Your task to perform on an android device: change keyboard looks Image 0: 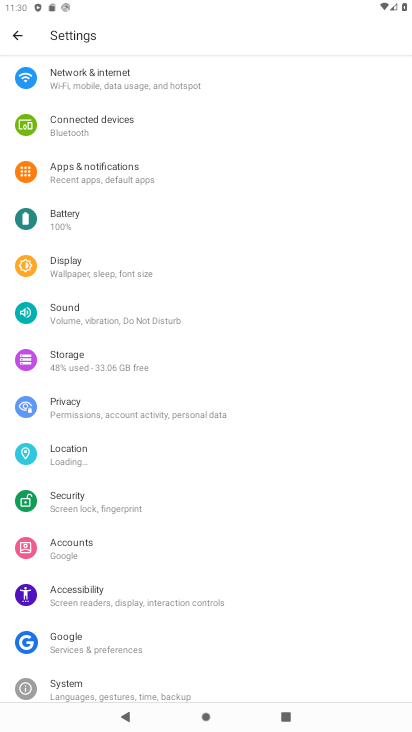
Step 0: drag from (146, 649) to (188, 215)
Your task to perform on an android device: change keyboard looks Image 1: 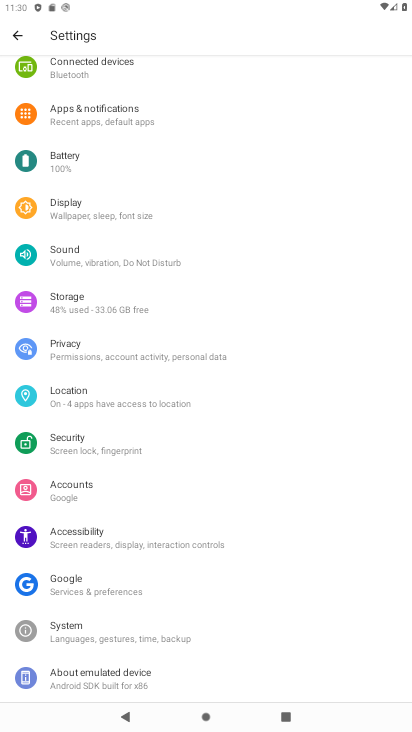
Step 1: click (133, 614)
Your task to perform on an android device: change keyboard looks Image 2: 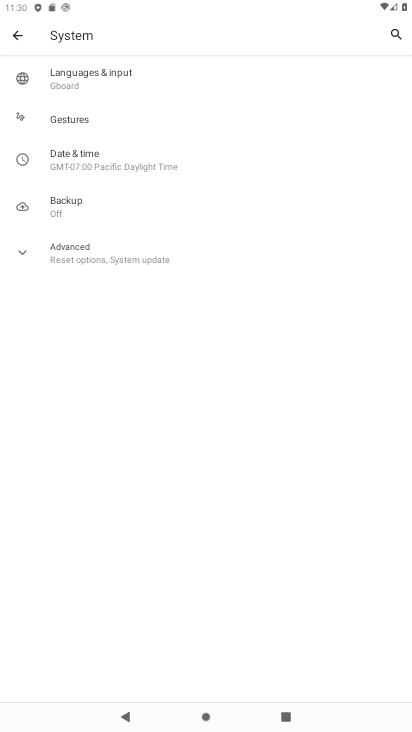
Step 2: click (109, 77)
Your task to perform on an android device: change keyboard looks Image 3: 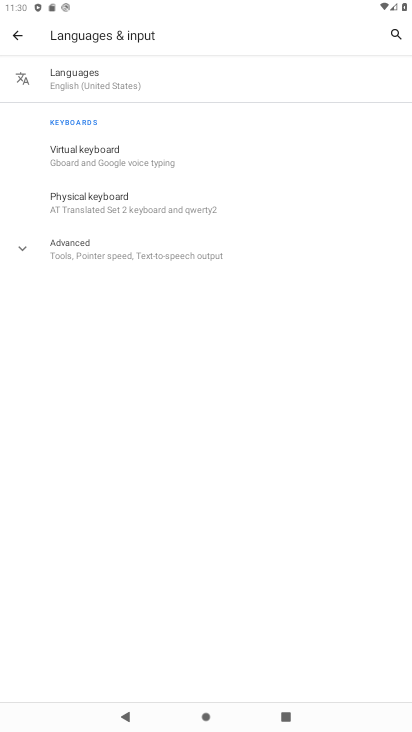
Step 3: click (97, 164)
Your task to perform on an android device: change keyboard looks Image 4: 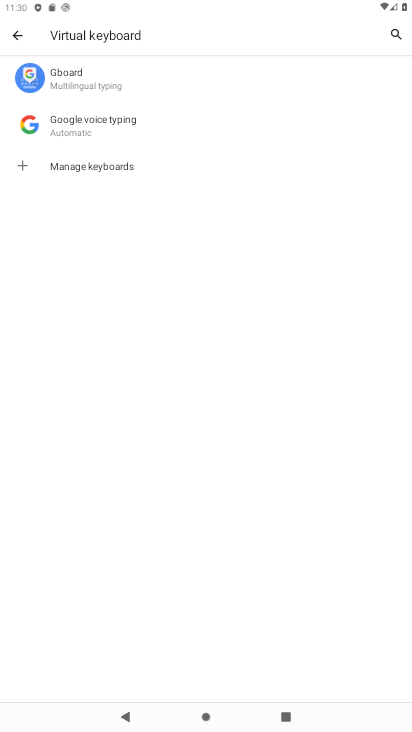
Step 4: click (91, 74)
Your task to perform on an android device: change keyboard looks Image 5: 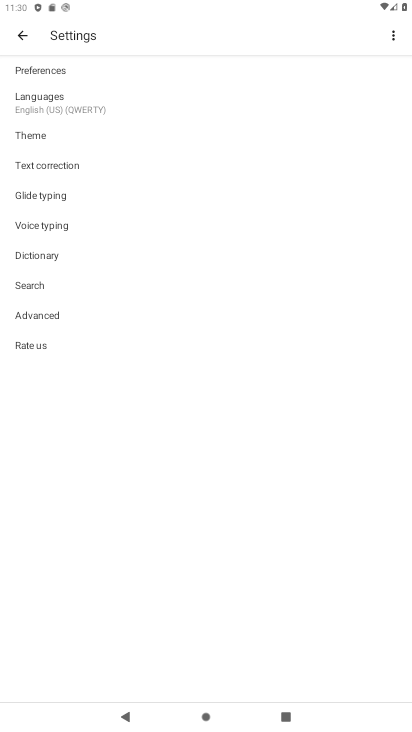
Step 5: click (54, 131)
Your task to perform on an android device: change keyboard looks Image 6: 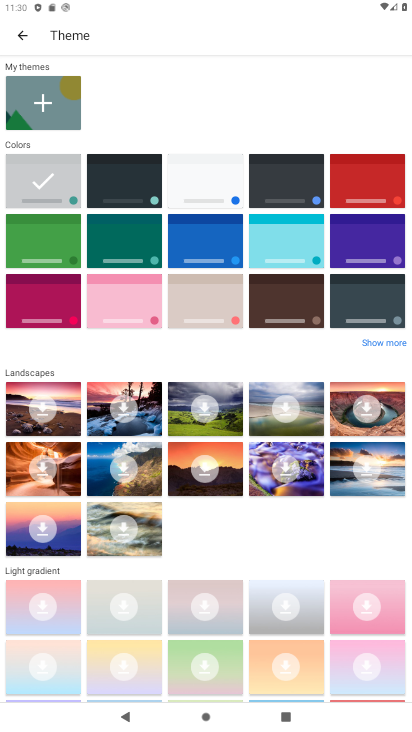
Step 6: click (217, 425)
Your task to perform on an android device: change keyboard looks Image 7: 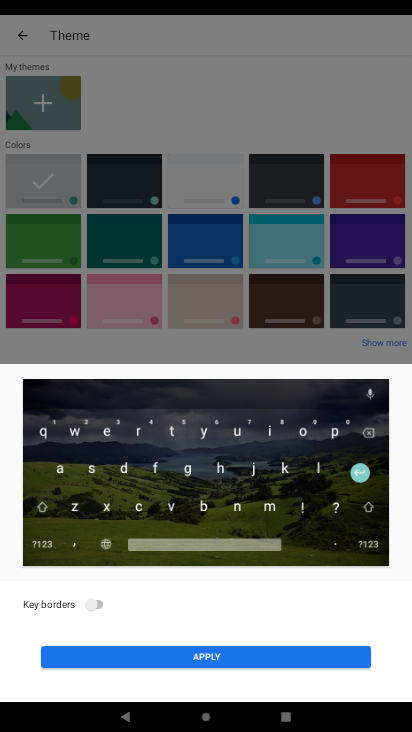
Step 7: click (217, 660)
Your task to perform on an android device: change keyboard looks Image 8: 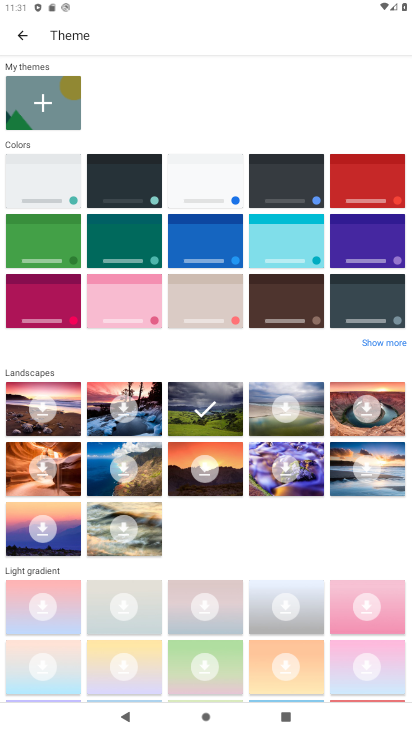
Step 8: task complete